Your task to perform on an android device: Search for seafood restaurants on Google Maps Image 0: 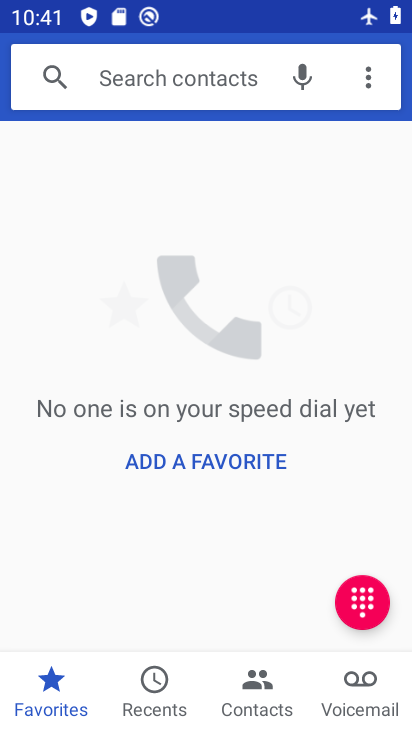
Step 0: press home button
Your task to perform on an android device: Search for seafood restaurants on Google Maps Image 1: 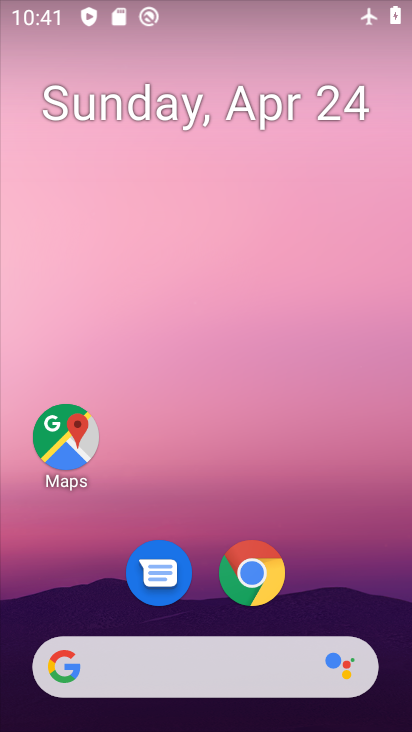
Step 1: drag from (324, 544) to (335, 96)
Your task to perform on an android device: Search for seafood restaurants on Google Maps Image 2: 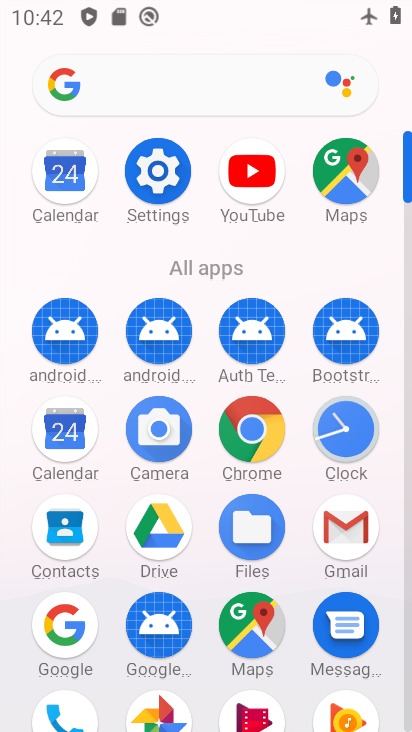
Step 2: click (251, 617)
Your task to perform on an android device: Search for seafood restaurants on Google Maps Image 3: 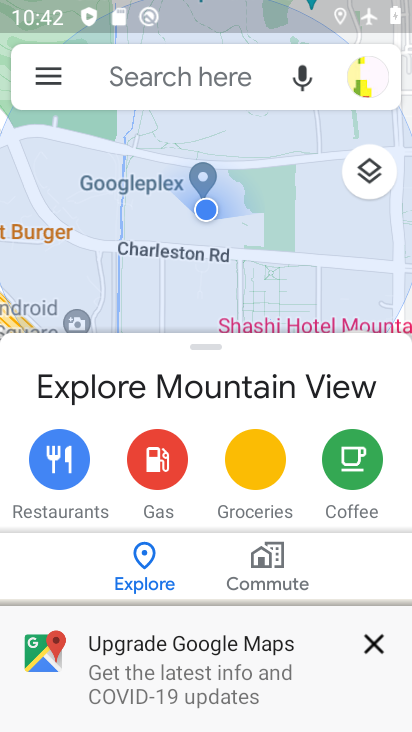
Step 3: click (195, 81)
Your task to perform on an android device: Search for seafood restaurants on Google Maps Image 4: 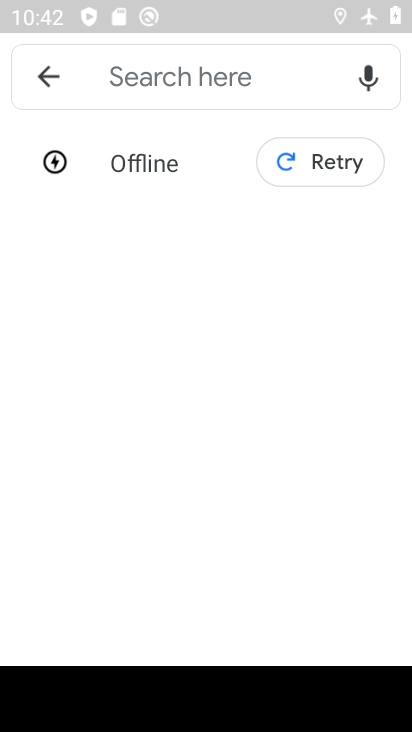
Step 4: type "seafood restaurants"
Your task to perform on an android device: Search for seafood restaurants on Google Maps Image 5: 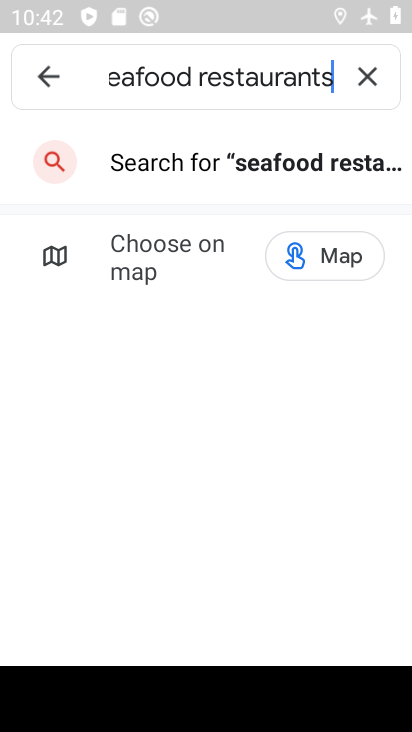
Step 5: click (304, 151)
Your task to perform on an android device: Search for seafood restaurants on Google Maps Image 6: 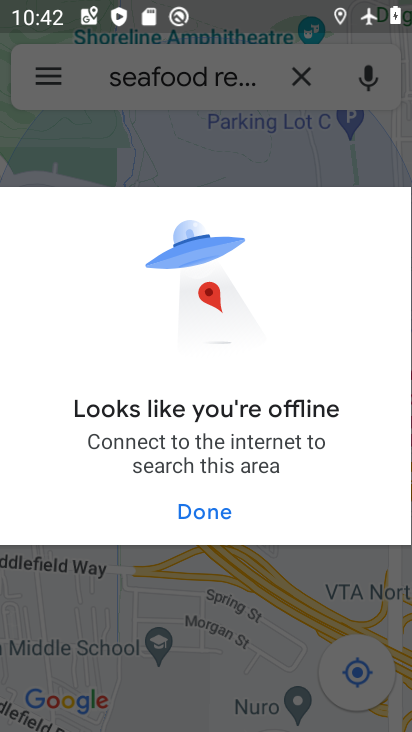
Step 6: task complete